Your task to perform on an android device: Check the weather Image 0: 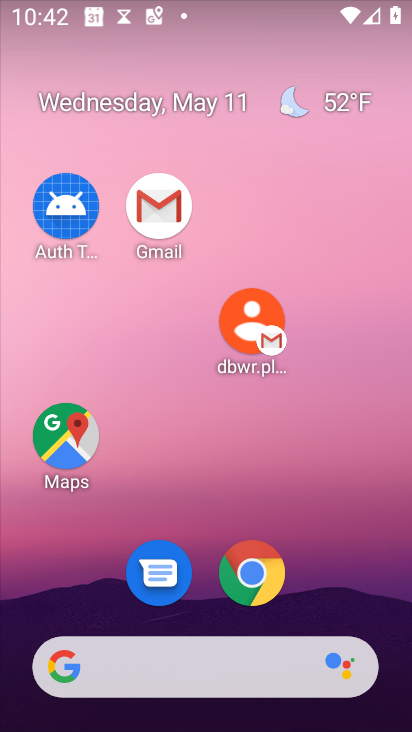
Step 0: click (223, 133)
Your task to perform on an android device: Check the weather Image 1: 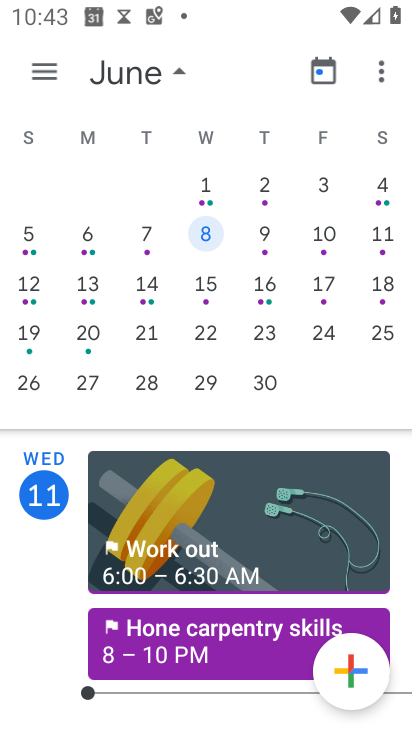
Step 1: press back button
Your task to perform on an android device: Check the weather Image 2: 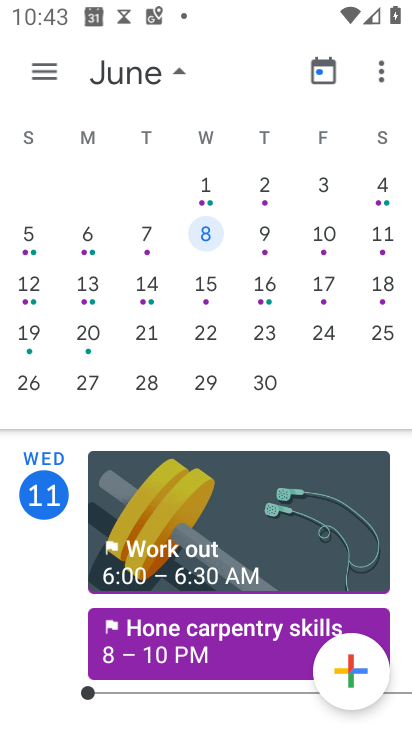
Step 2: press back button
Your task to perform on an android device: Check the weather Image 3: 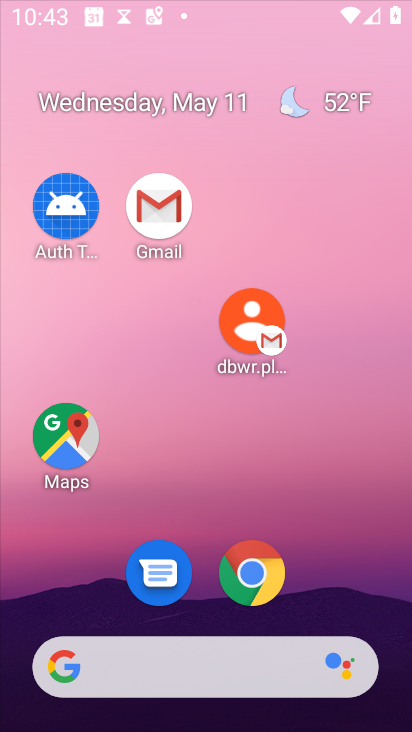
Step 3: press back button
Your task to perform on an android device: Check the weather Image 4: 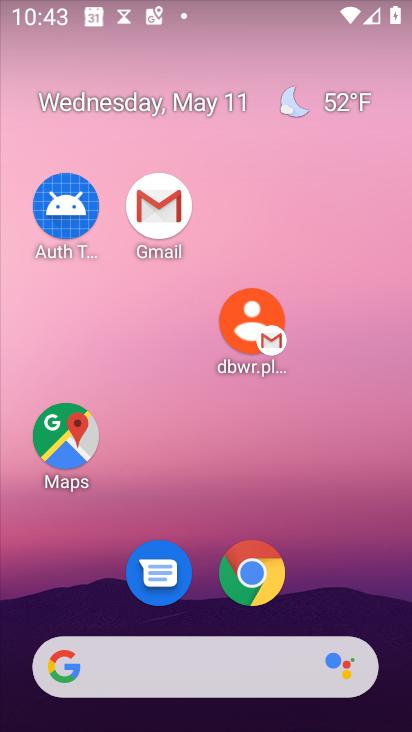
Step 4: click (282, 109)
Your task to perform on an android device: Check the weather Image 5: 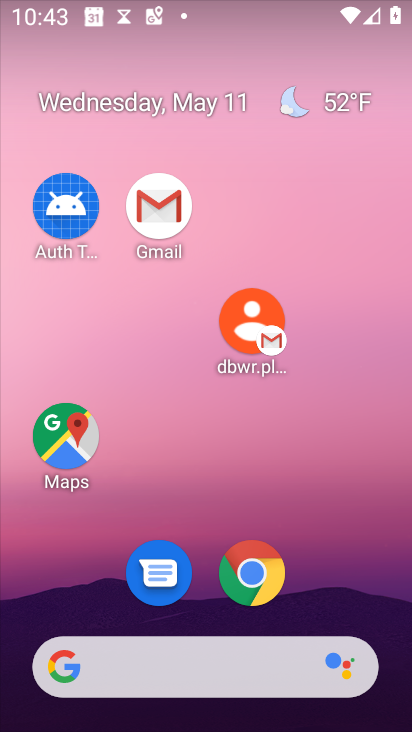
Step 5: click (285, 106)
Your task to perform on an android device: Check the weather Image 6: 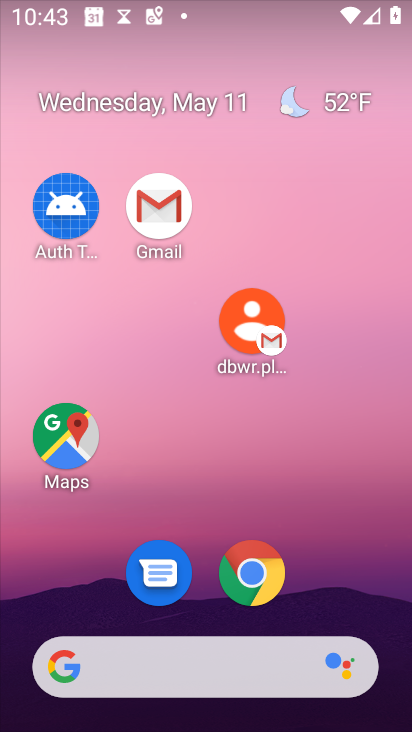
Step 6: click (286, 105)
Your task to perform on an android device: Check the weather Image 7: 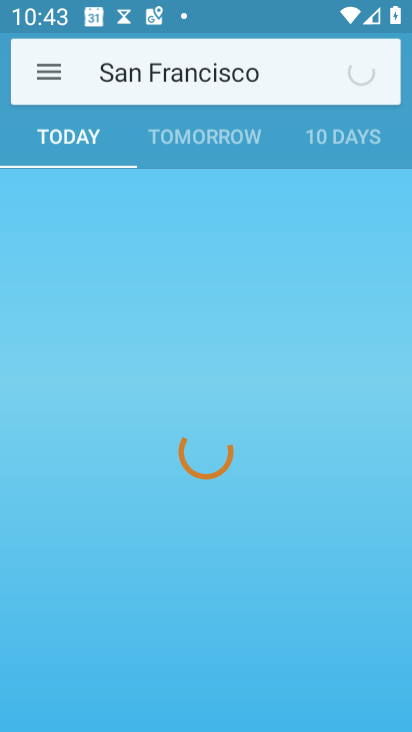
Step 7: click (286, 104)
Your task to perform on an android device: Check the weather Image 8: 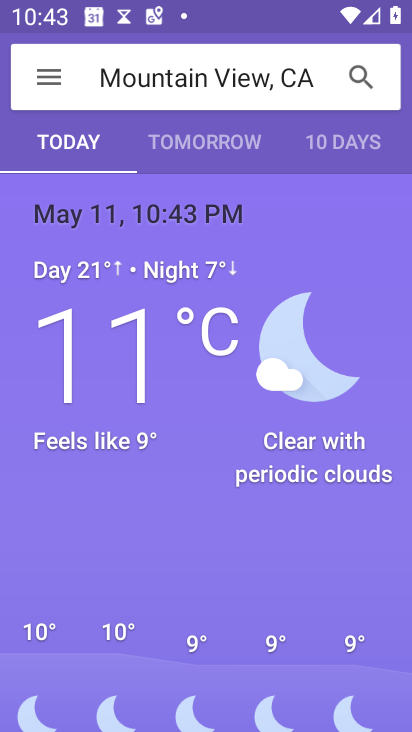
Step 8: task complete